Your task to perform on an android device: turn off translation in the chrome app Image 0: 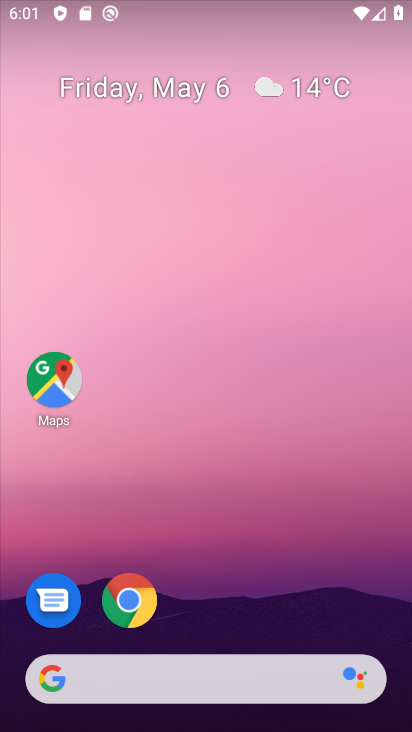
Step 0: click (129, 598)
Your task to perform on an android device: turn off translation in the chrome app Image 1: 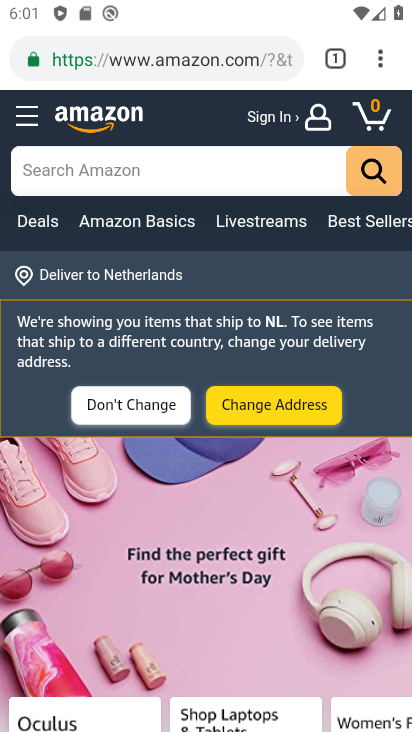
Step 1: click (383, 59)
Your task to perform on an android device: turn off translation in the chrome app Image 2: 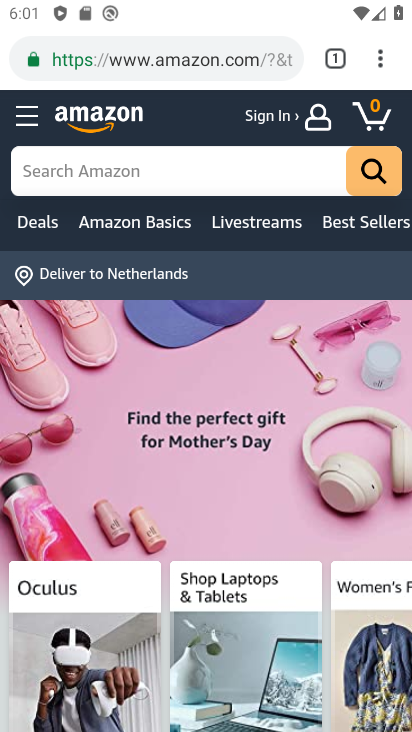
Step 2: click (383, 61)
Your task to perform on an android device: turn off translation in the chrome app Image 3: 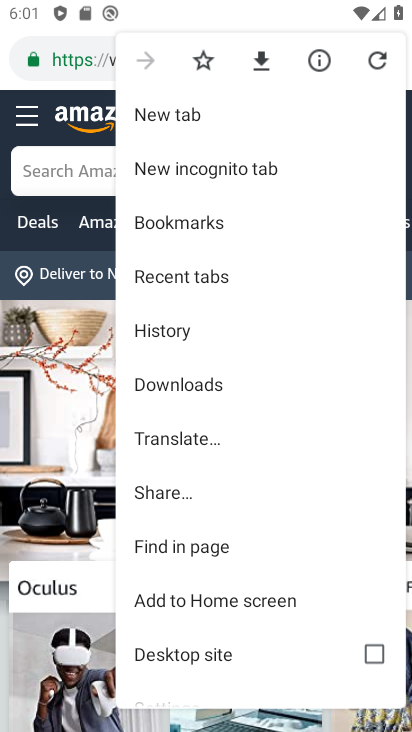
Step 3: drag from (259, 644) to (338, 495)
Your task to perform on an android device: turn off translation in the chrome app Image 4: 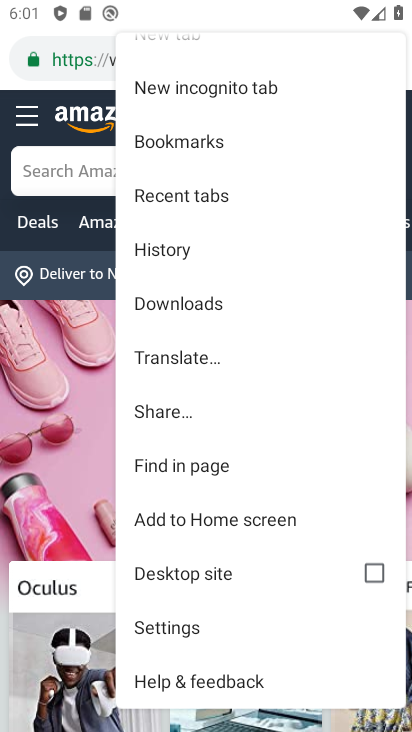
Step 4: click (180, 633)
Your task to perform on an android device: turn off translation in the chrome app Image 5: 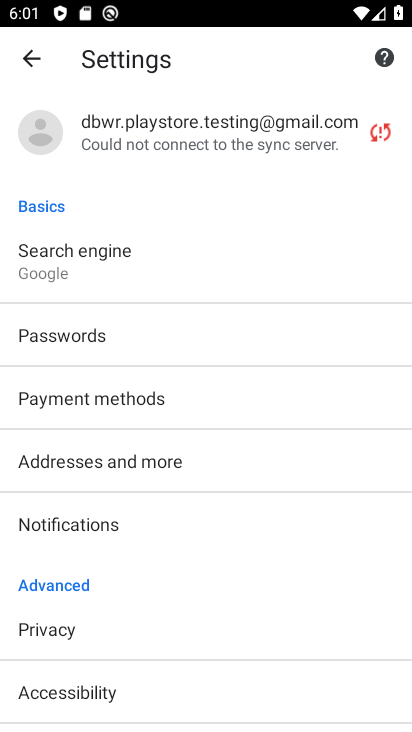
Step 5: drag from (206, 622) to (279, 506)
Your task to perform on an android device: turn off translation in the chrome app Image 6: 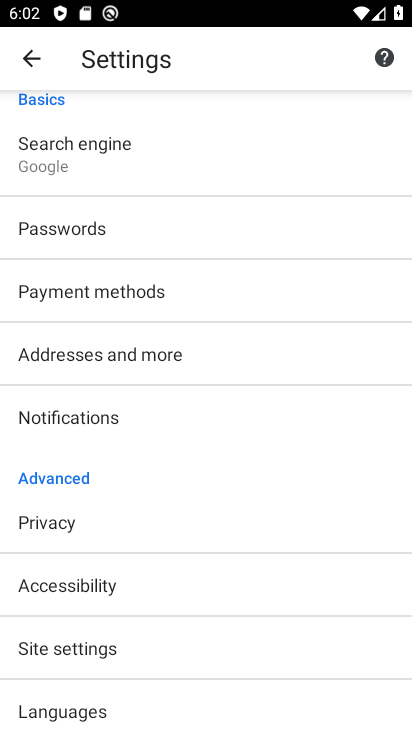
Step 6: drag from (156, 638) to (218, 519)
Your task to perform on an android device: turn off translation in the chrome app Image 7: 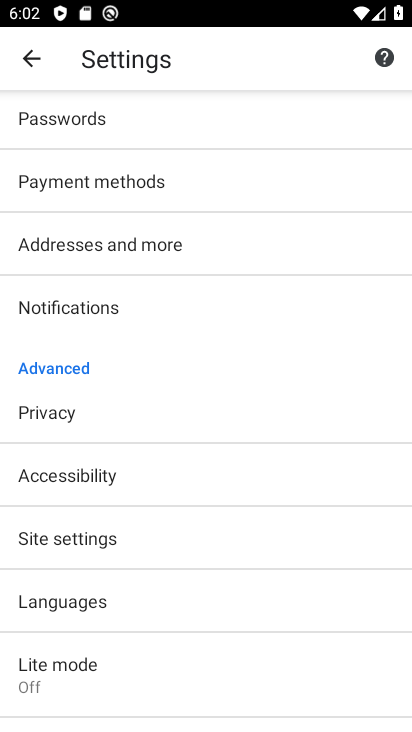
Step 7: click (96, 599)
Your task to perform on an android device: turn off translation in the chrome app Image 8: 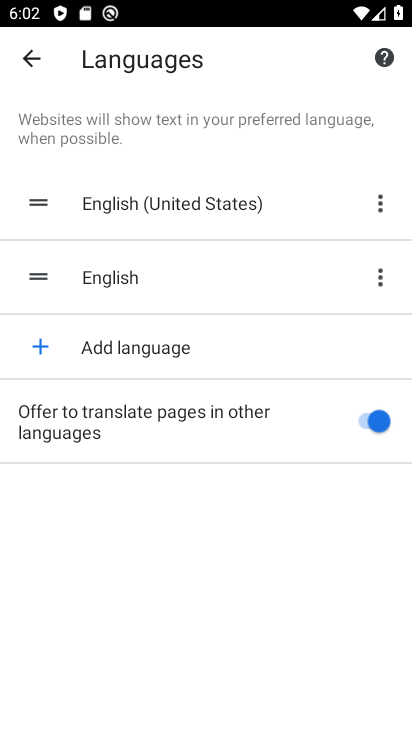
Step 8: click (381, 421)
Your task to perform on an android device: turn off translation in the chrome app Image 9: 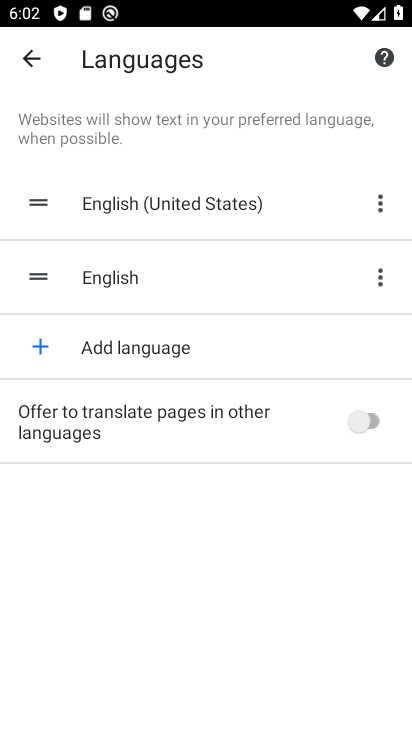
Step 9: task complete